Your task to perform on an android device: Open notification settings Image 0: 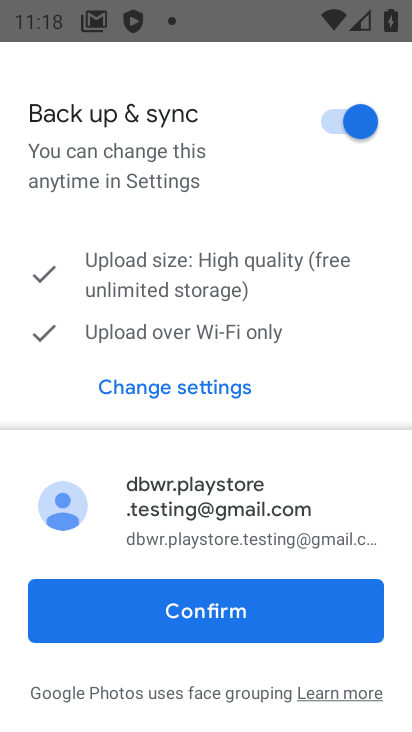
Step 0: click (297, 623)
Your task to perform on an android device: Open notification settings Image 1: 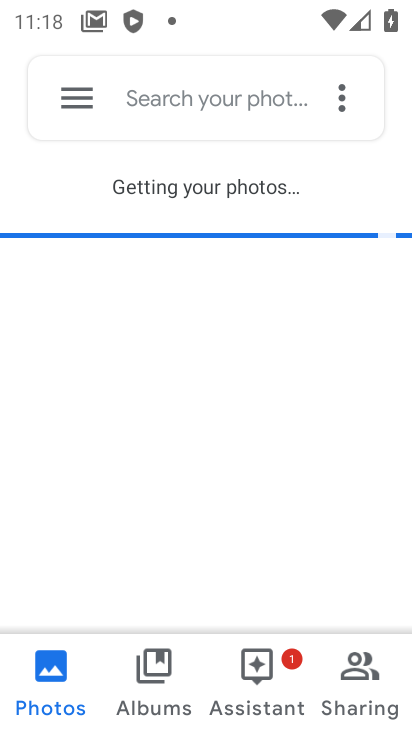
Step 1: press home button
Your task to perform on an android device: Open notification settings Image 2: 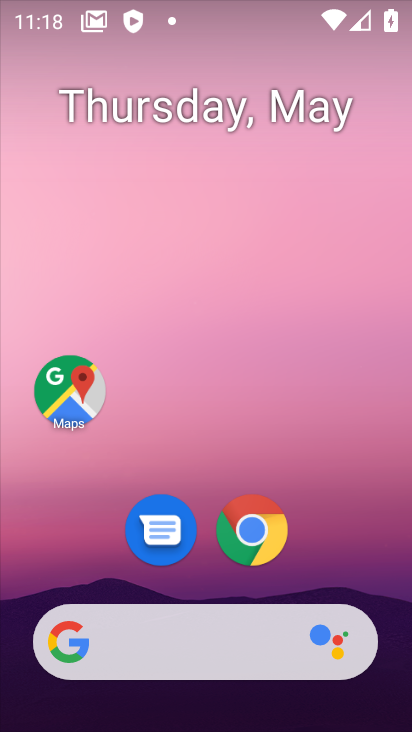
Step 2: click (352, 298)
Your task to perform on an android device: Open notification settings Image 3: 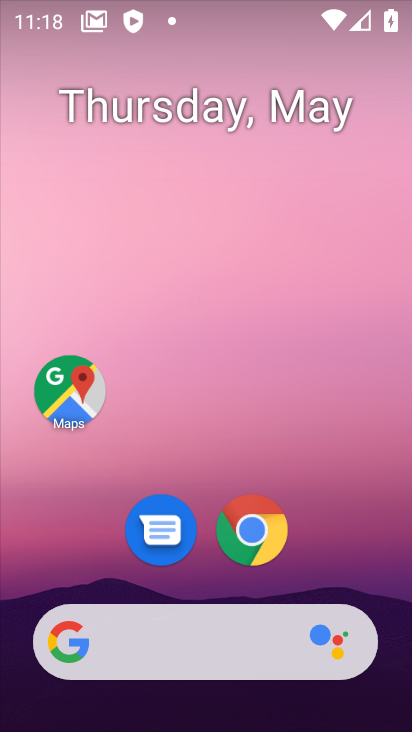
Step 3: drag from (381, 463) to (381, 206)
Your task to perform on an android device: Open notification settings Image 4: 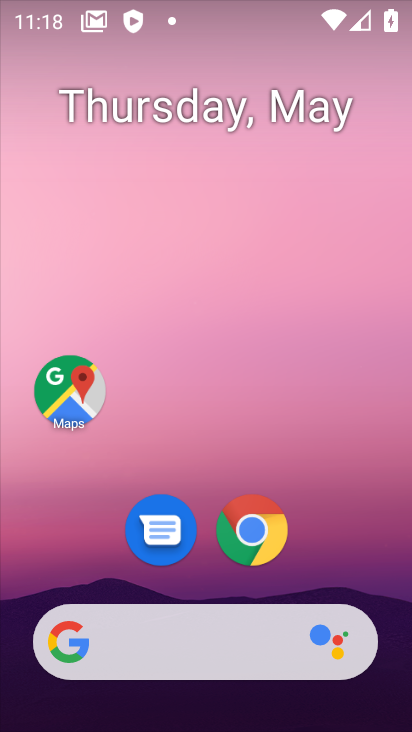
Step 4: click (344, 194)
Your task to perform on an android device: Open notification settings Image 5: 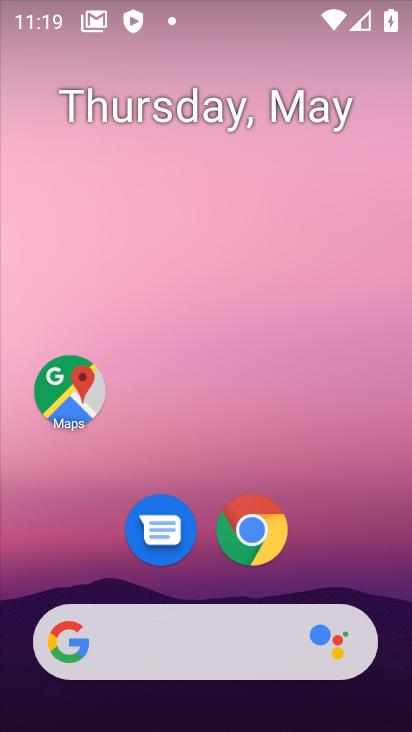
Step 5: drag from (399, 525) to (409, 202)
Your task to perform on an android device: Open notification settings Image 6: 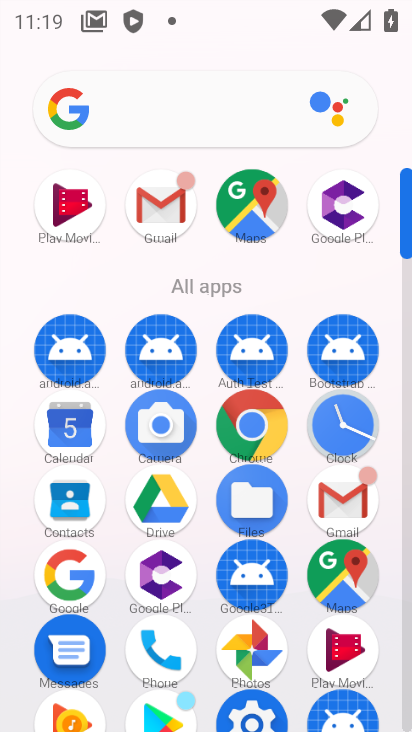
Step 6: click (251, 702)
Your task to perform on an android device: Open notification settings Image 7: 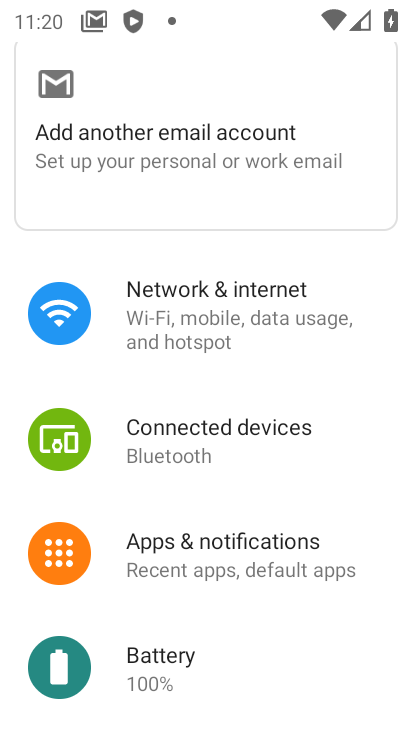
Step 7: click (222, 558)
Your task to perform on an android device: Open notification settings Image 8: 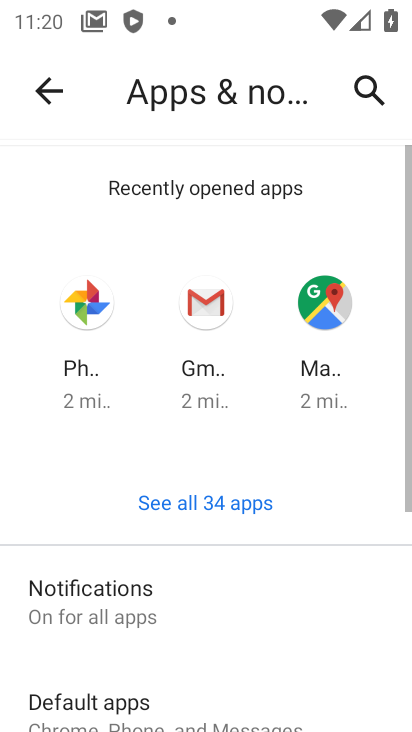
Step 8: click (134, 598)
Your task to perform on an android device: Open notification settings Image 9: 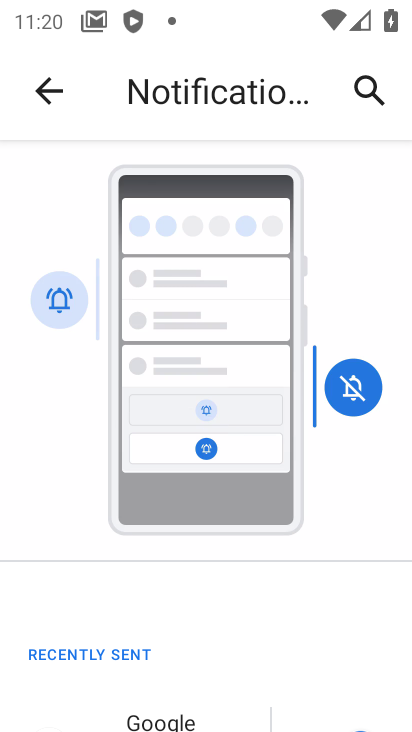
Step 9: task complete